Your task to perform on an android device: Search for hotels in London Image 0: 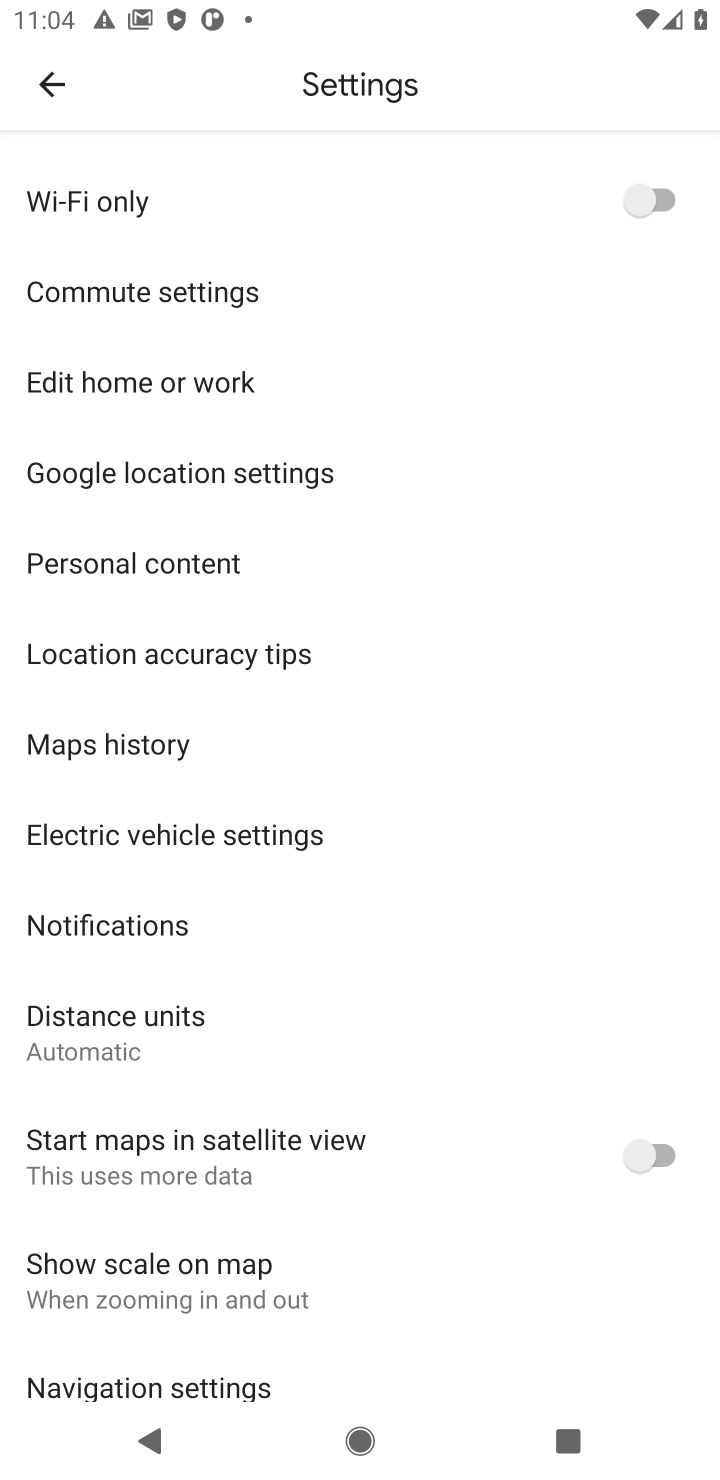
Step 0: press home button
Your task to perform on an android device: Search for hotels in London Image 1: 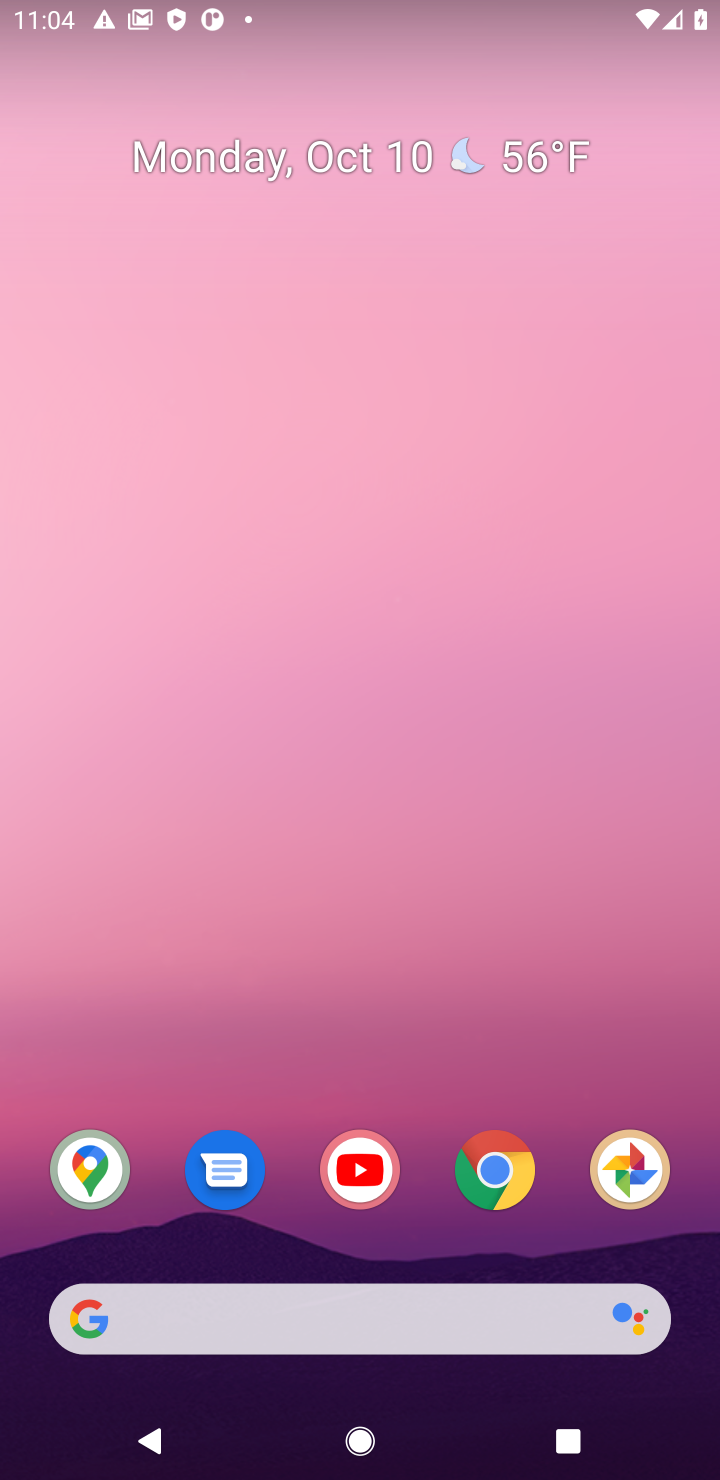
Step 1: drag from (443, 1200) to (625, 193)
Your task to perform on an android device: Search for hotels in London Image 2: 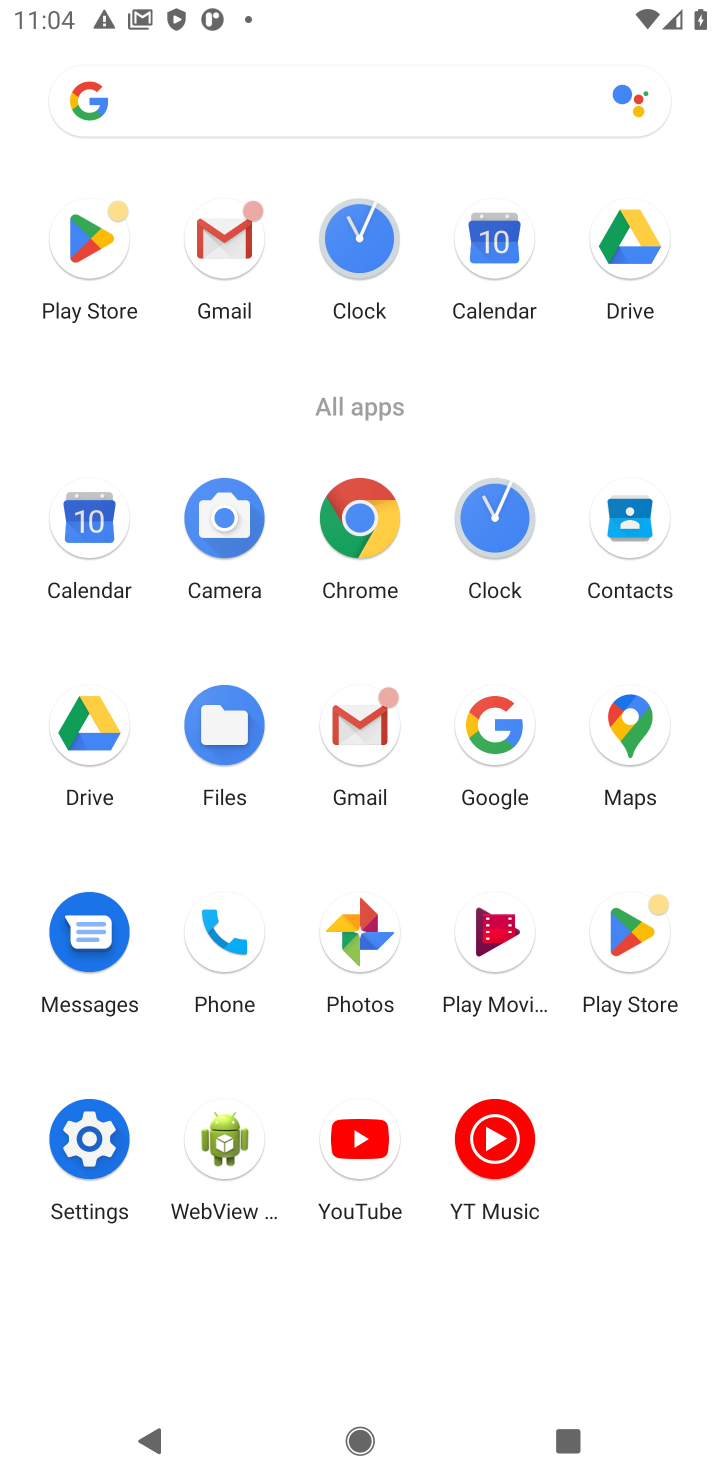
Step 2: click (484, 714)
Your task to perform on an android device: Search for hotels in London Image 3: 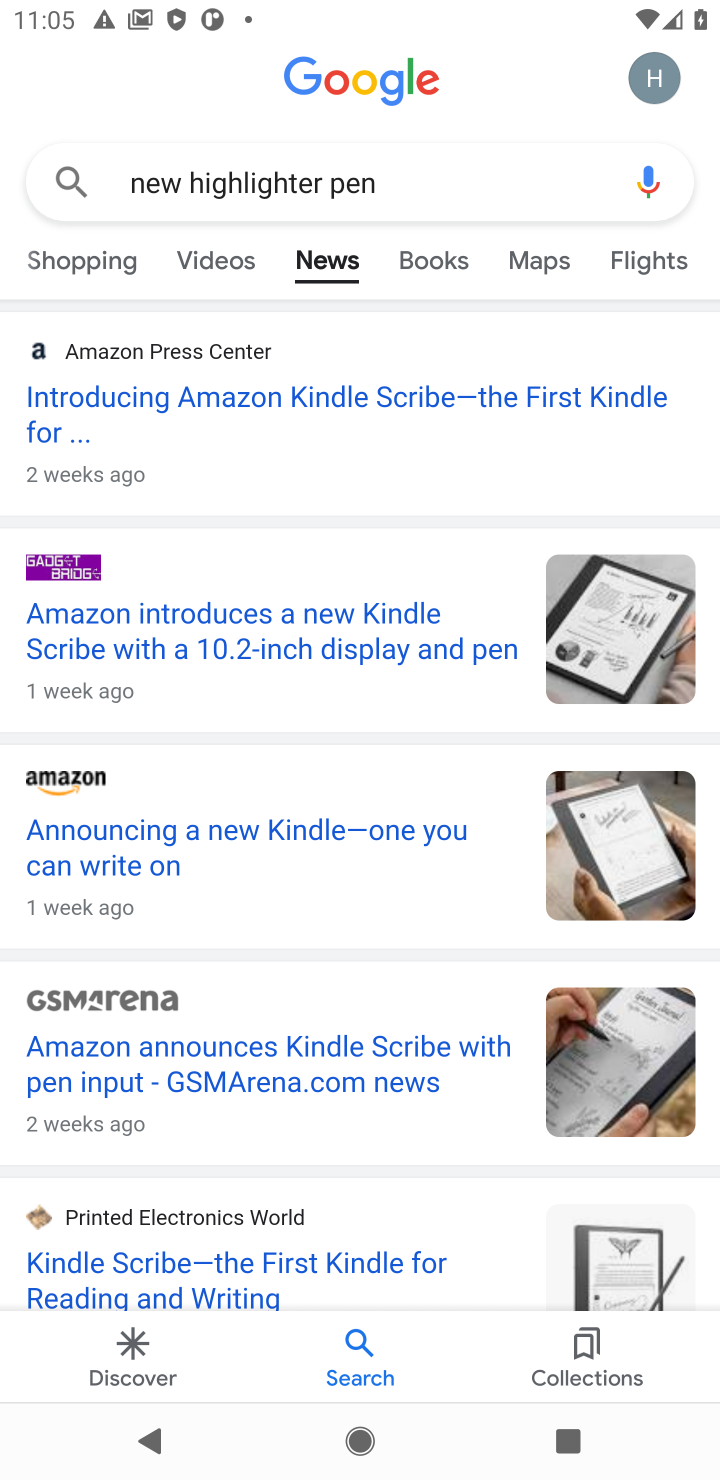
Step 3: click (508, 187)
Your task to perform on an android device: Search for hotels in London Image 4: 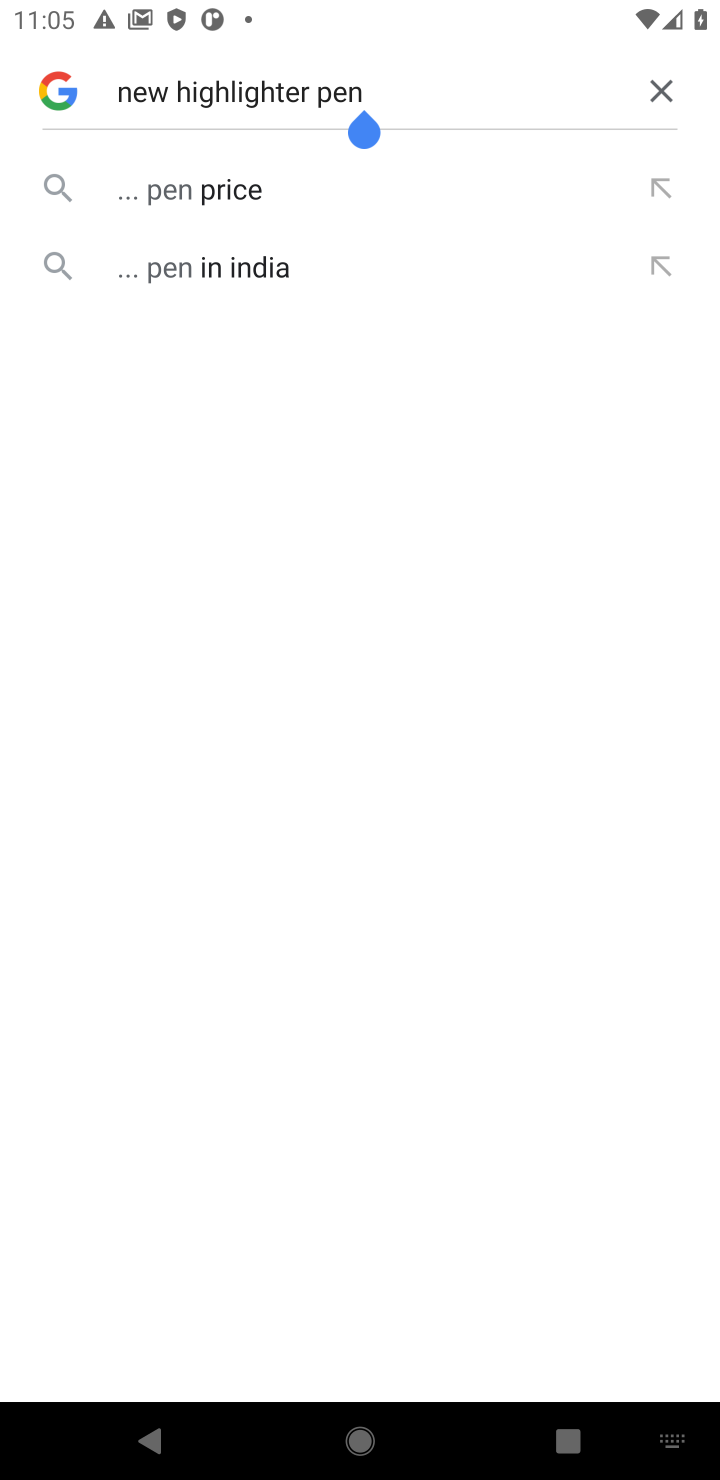
Step 4: click (656, 84)
Your task to perform on an android device: Search for hotels in London Image 5: 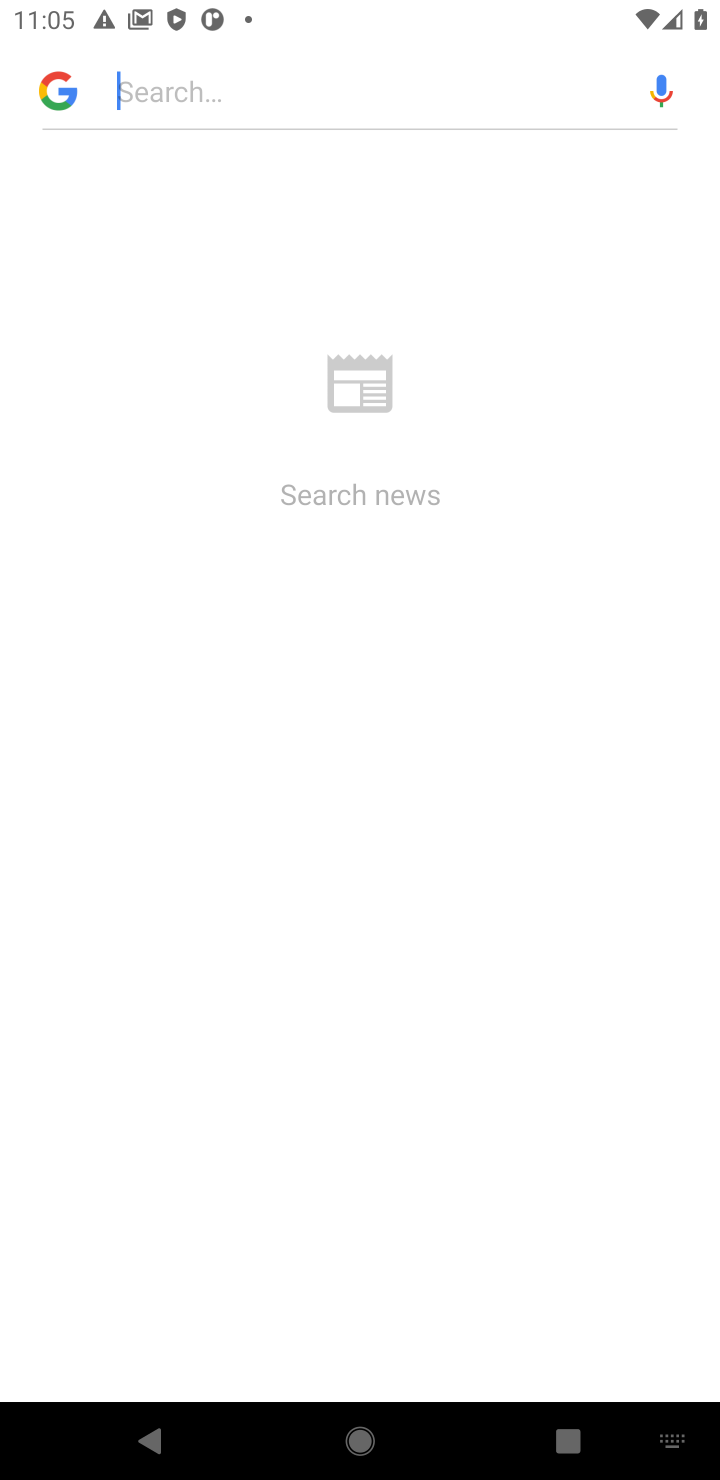
Step 5: type "hotels in London"
Your task to perform on an android device: Search for hotels in London Image 6: 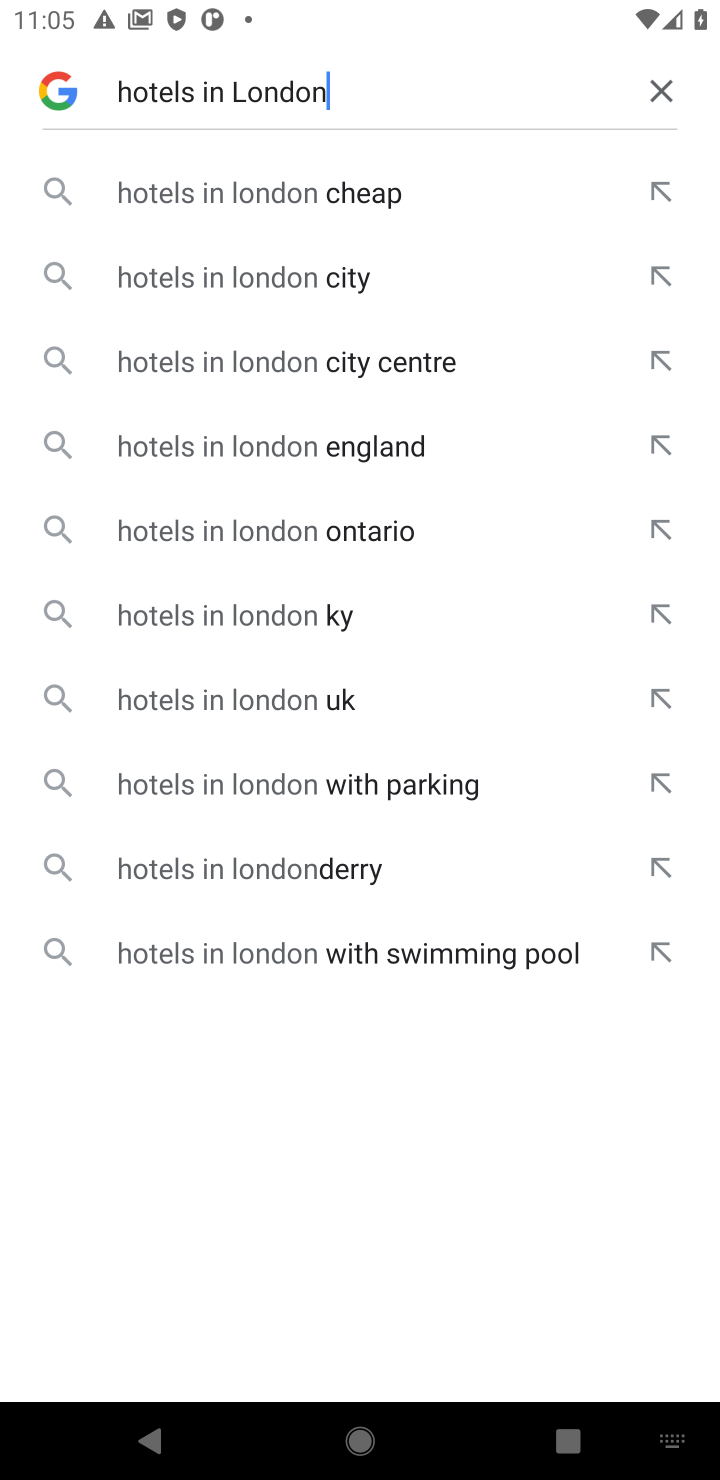
Step 6: click (424, 289)
Your task to perform on an android device: Search for hotels in London Image 7: 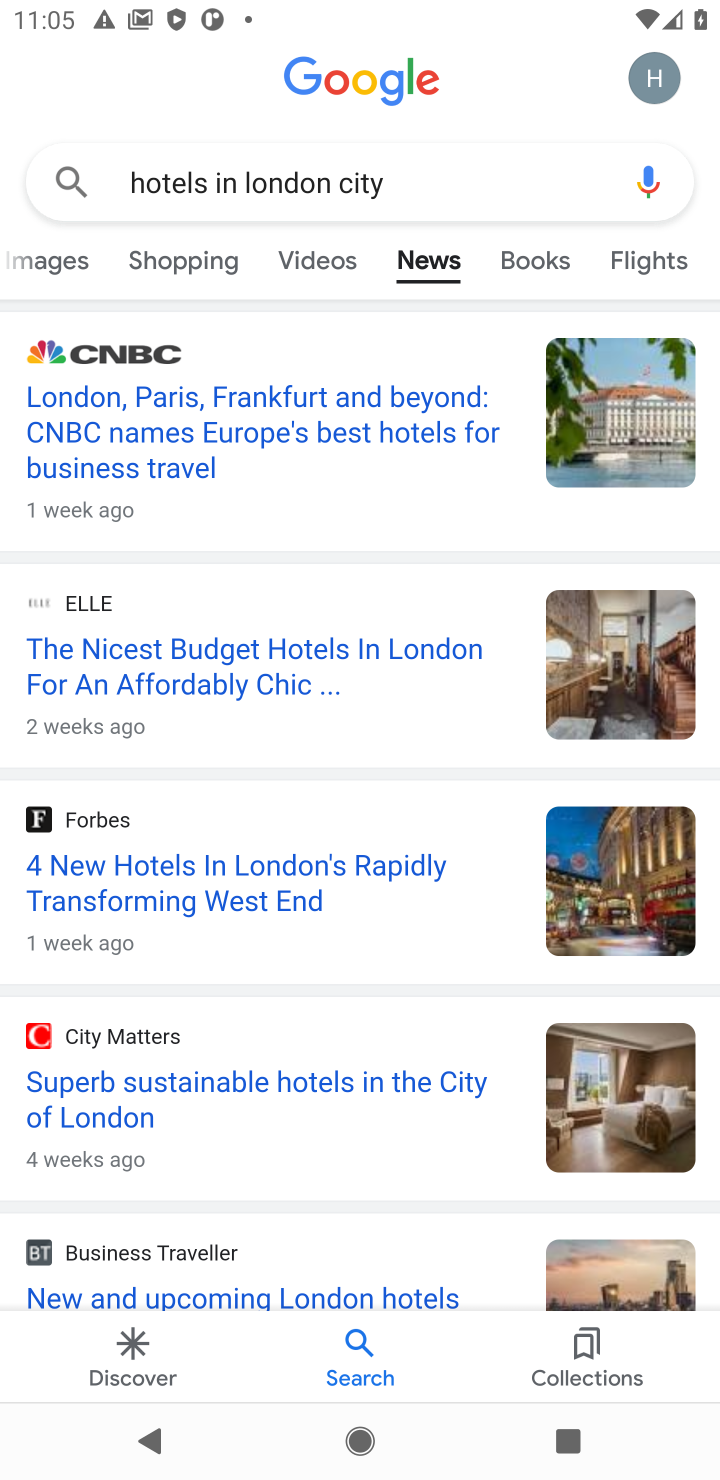
Step 7: drag from (196, 267) to (644, 263)
Your task to perform on an android device: Search for hotels in London Image 8: 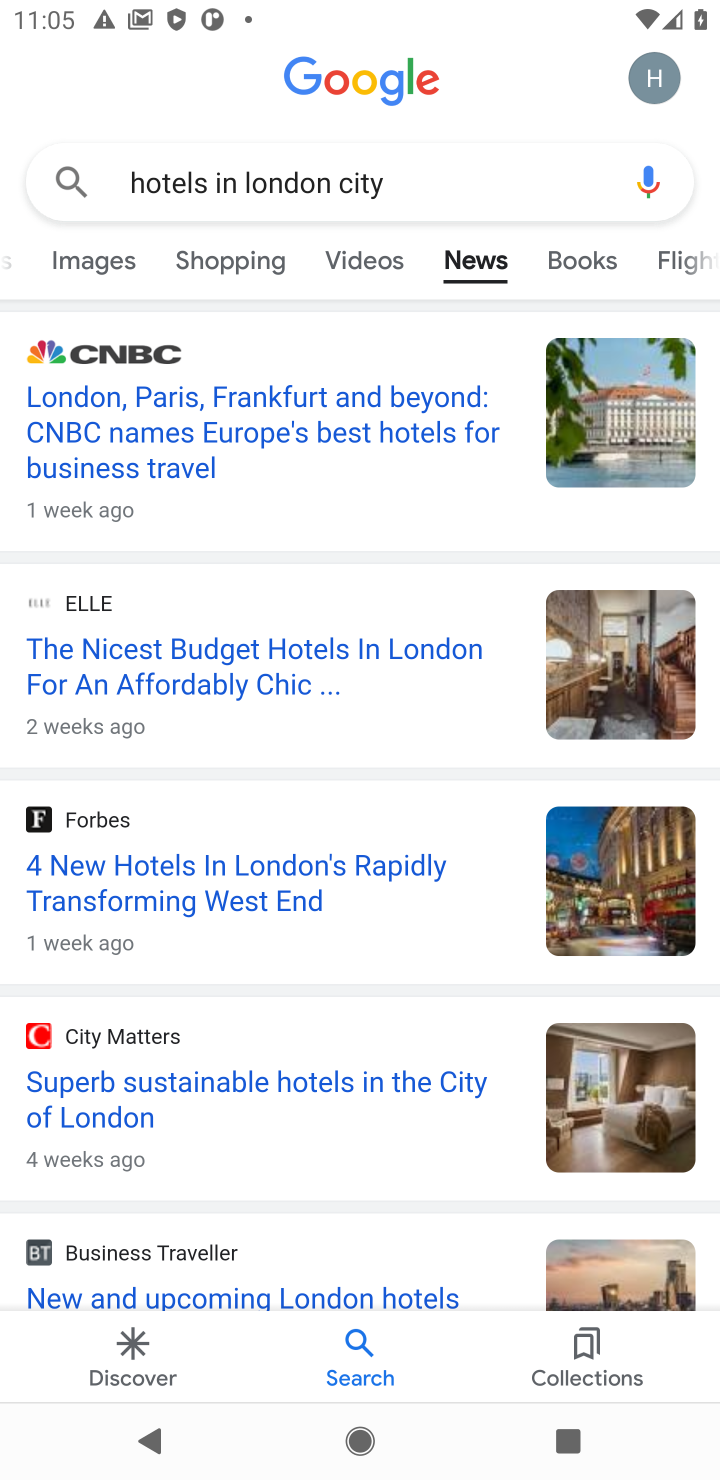
Step 8: drag from (110, 264) to (534, 283)
Your task to perform on an android device: Search for hotels in London Image 9: 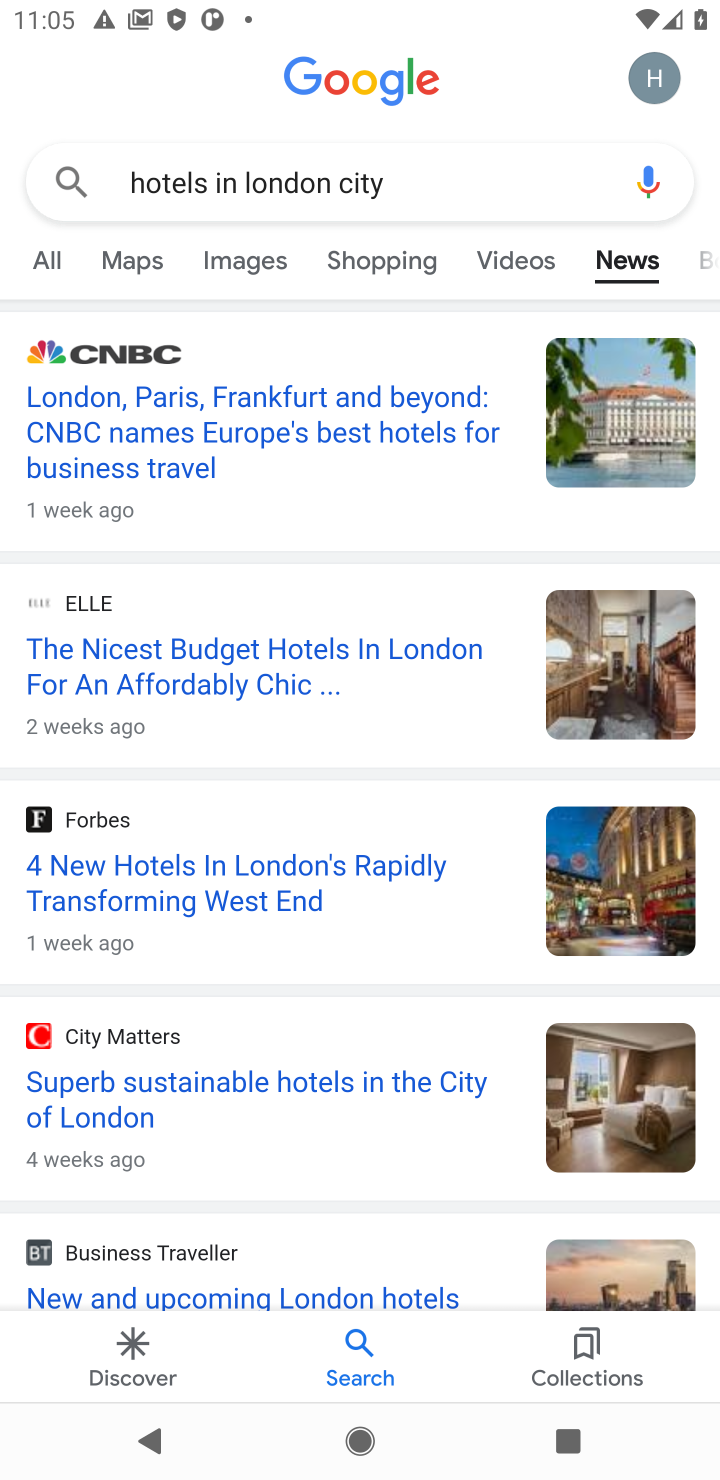
Step 9: click (53, 254)
Your task to perform on an android device: Search for hotels in London Image 10: 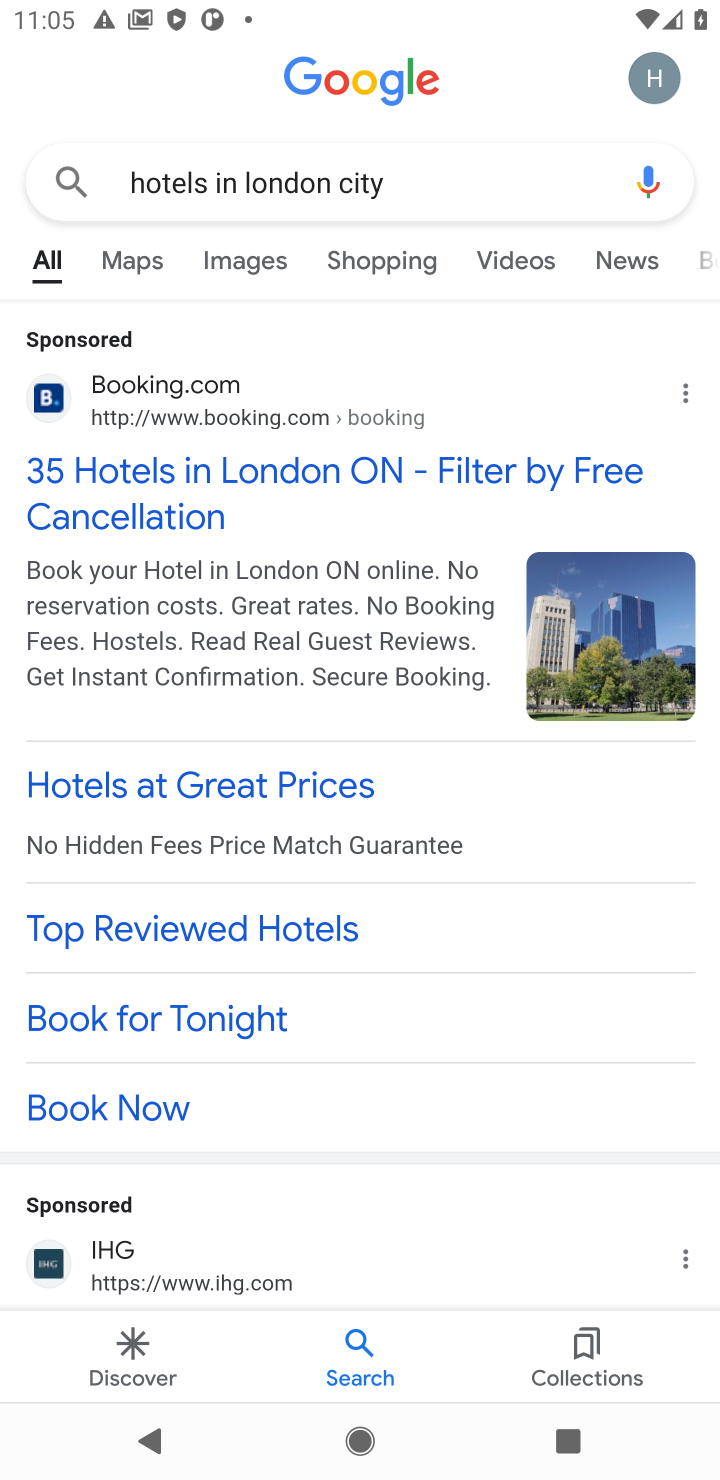
Step 10: task complete